Your task to perform on an android device: What's the weather today? Image 0: 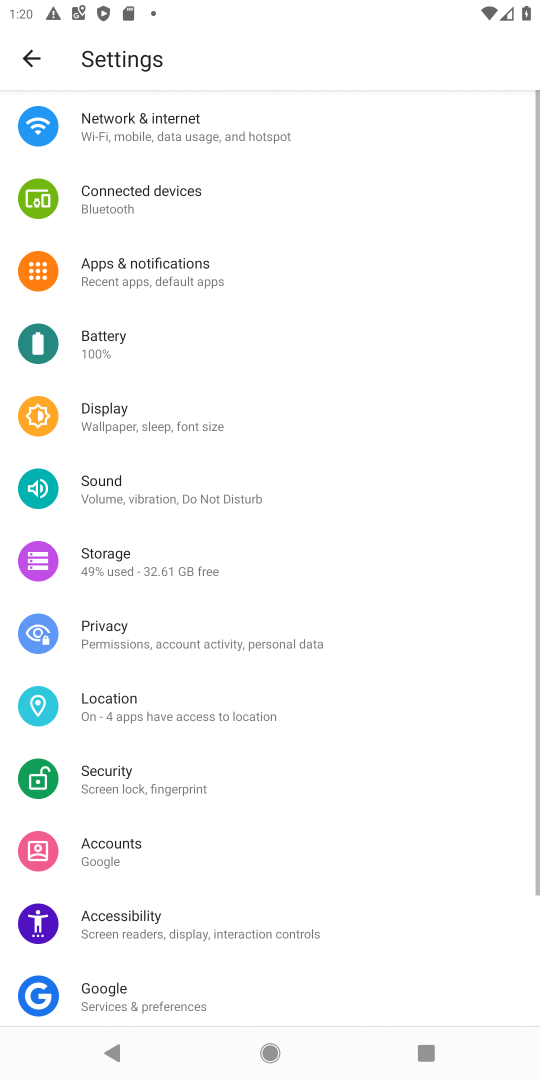
Step 0: press home button
Your task to perform on an android device: What's the weather today? Image 1: 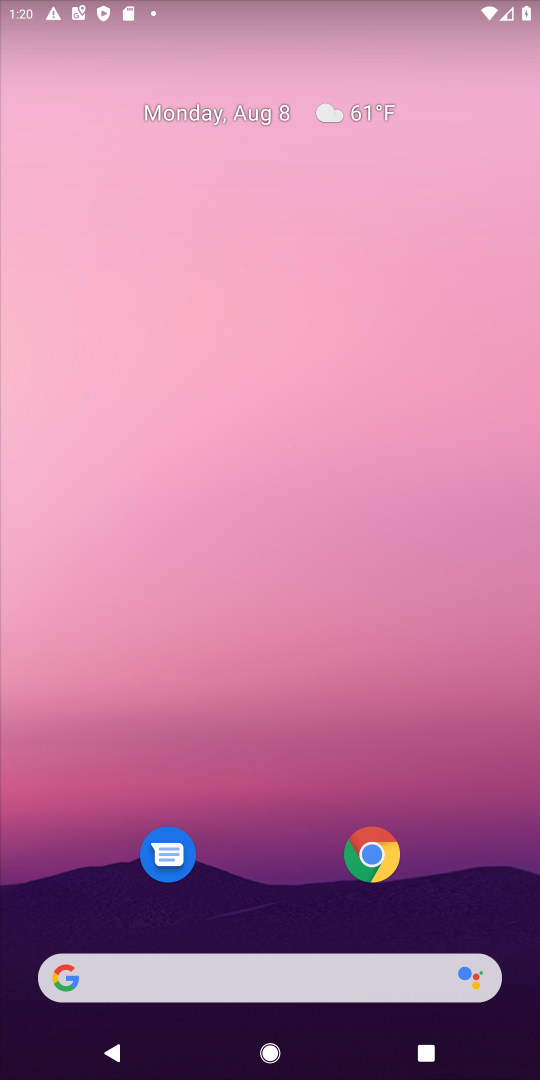
Step 1: click (84, 968)
Your task to perform on an android device: What's the weather today? Image 2: 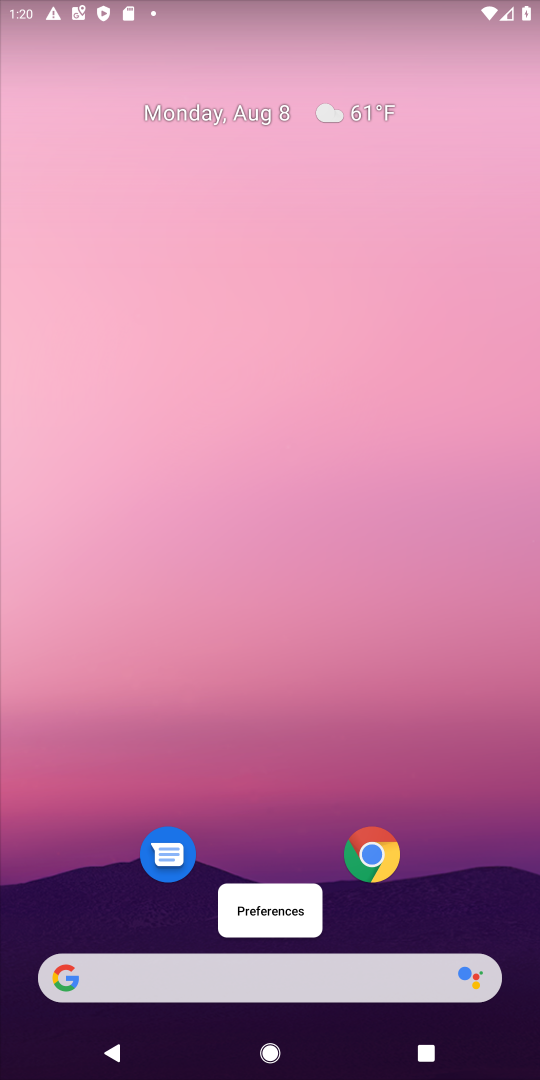
Step 2: click (84, 968)
Your task to perform on an android device: What's the weather today? Image 3: 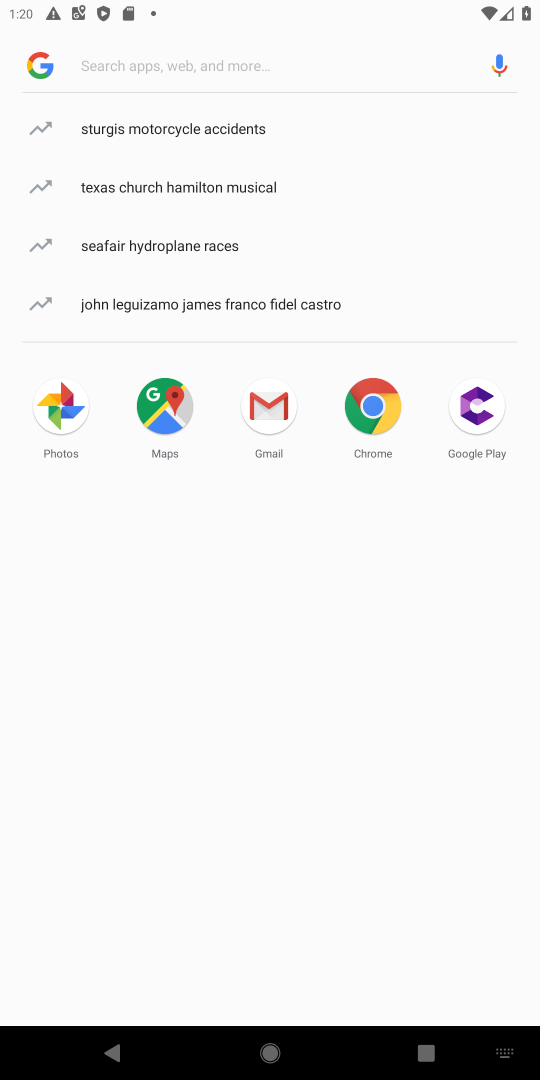
Step 3: type "What's the weather today?"
Your task to perform on an android device: What's the weather today? Image 4: 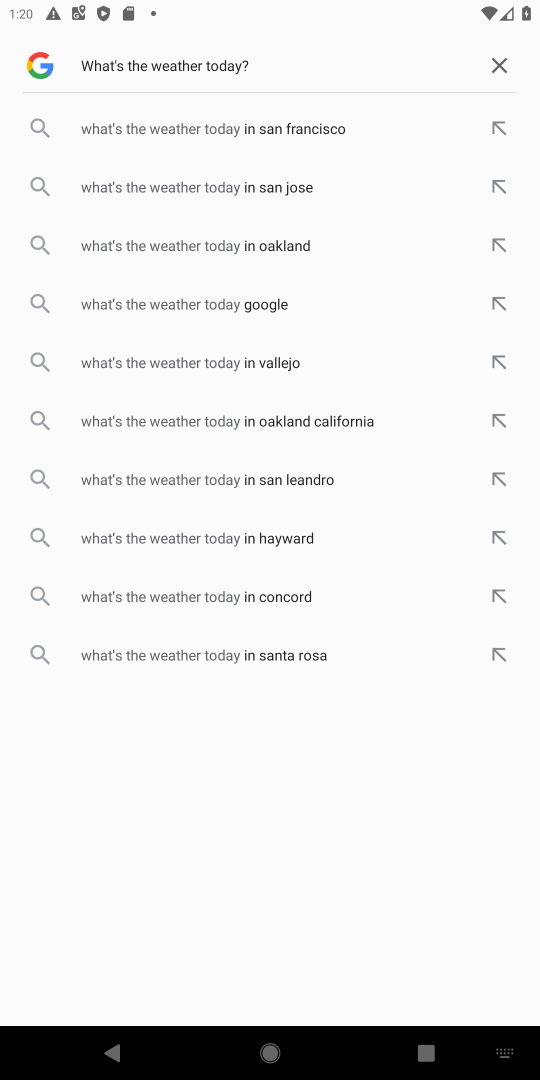
Step 4: type ""
Your task to perform on an android device: What's the weather today? Image 5: 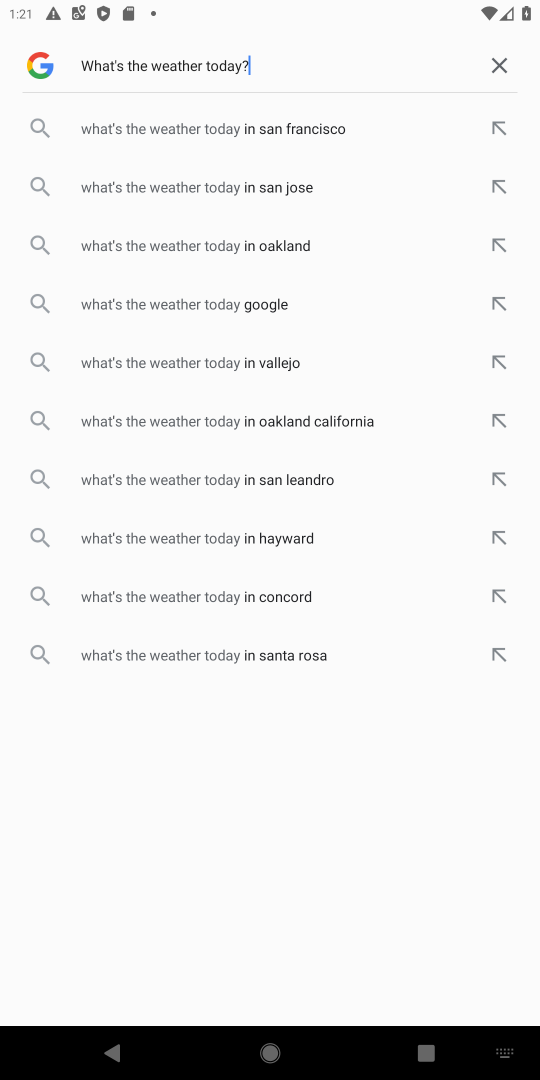
Step 5: task complete